Your task to perform on an android device: move a message to another label in the gmail app Image 0: 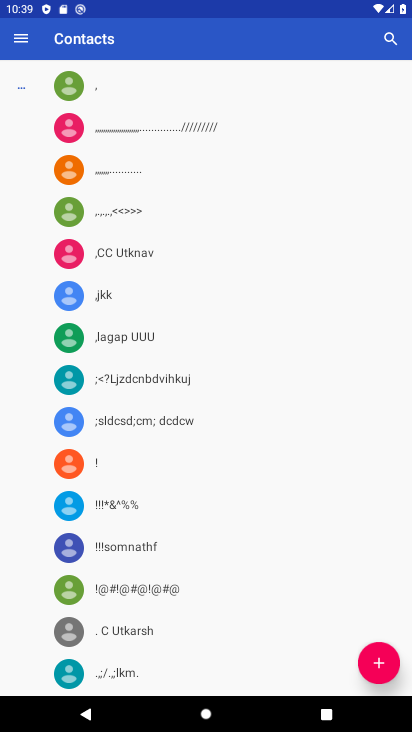
Step 0: press home button
Your task to perform on an android device: move a message to another label in the gmail app Image 1: 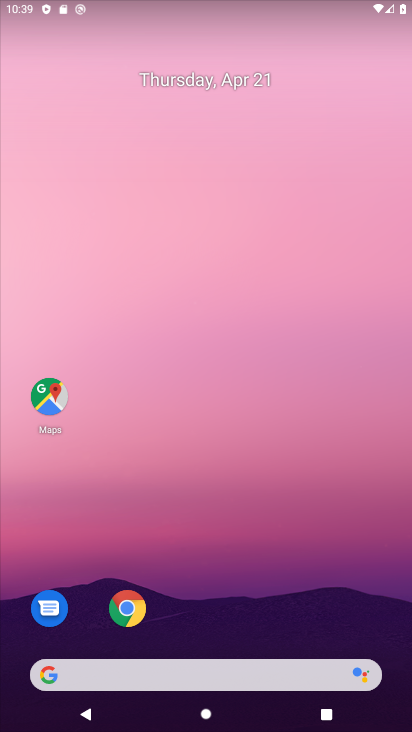
Step 1: drag from (270, 547) to (228, 3)
Your task to perform on an android device: move a message to another label in the gmail app Image 2: 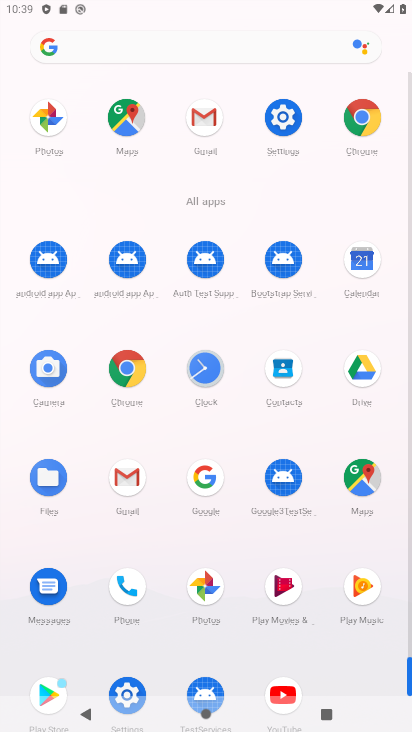
Step 2: click (203, 116)
Your task to perform on an android device: move a message to another label in the gmail app Image 3: 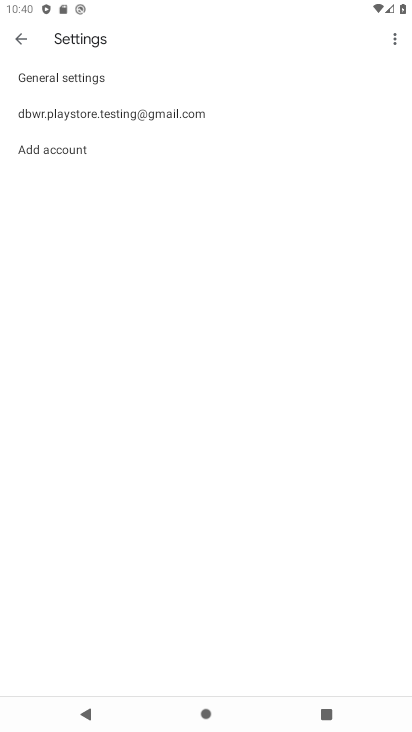
Step 3: press back button
Your task to perform on an android device: move a message to another label in the gmail app Image 4: 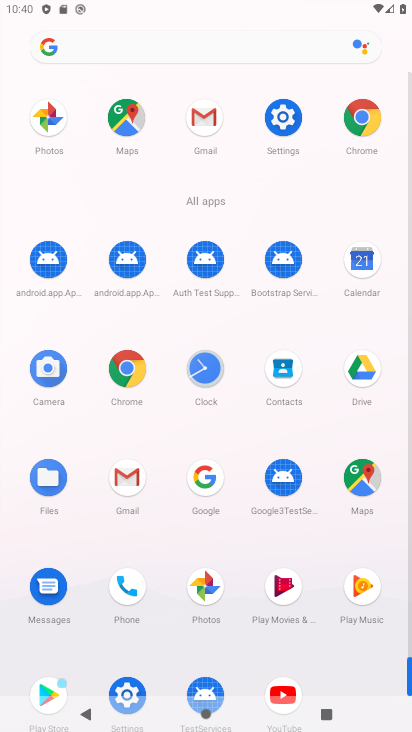
Step 4: click (203, 120)
Your task to perform on an android device: move a message to another label in the gmail app Image 5: 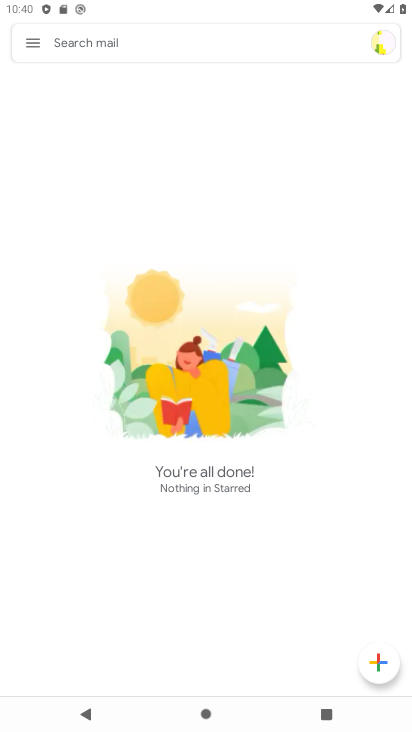
Step 5: click (28, 49)
Your task to perform on an android device: move a message to another label in the gmail app Image 6: 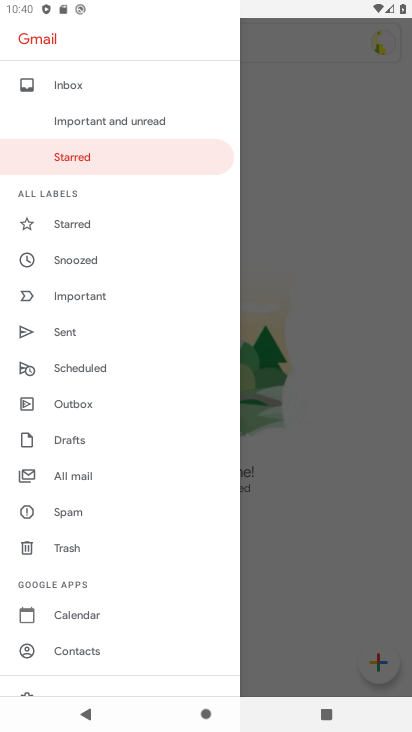
Step 6: click (59, 82)
Your task to perform on an android device: move a message to another label in the gmail app Image 7: 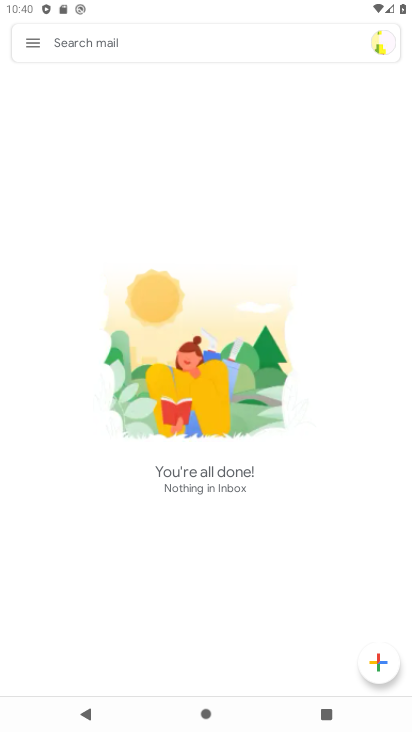
Step 7: click (33, 47)
Your task to perform on an android device: move a message to another label in the gmail app Image 8: 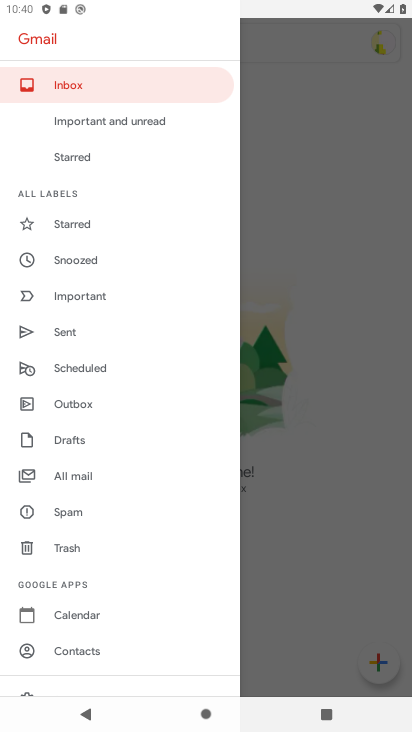
Step 8: click (83, 479)
Your task to perform on an android device: move a message to another label in the gmail app Image 9: 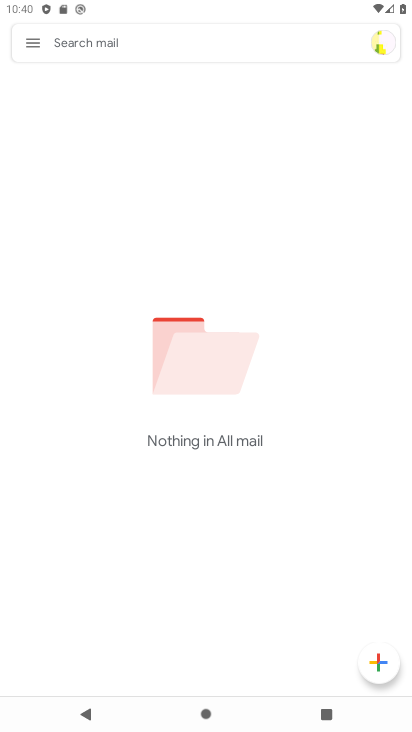
Step 9: task complete